Your task to perform on an android device: turn off location Image 0: 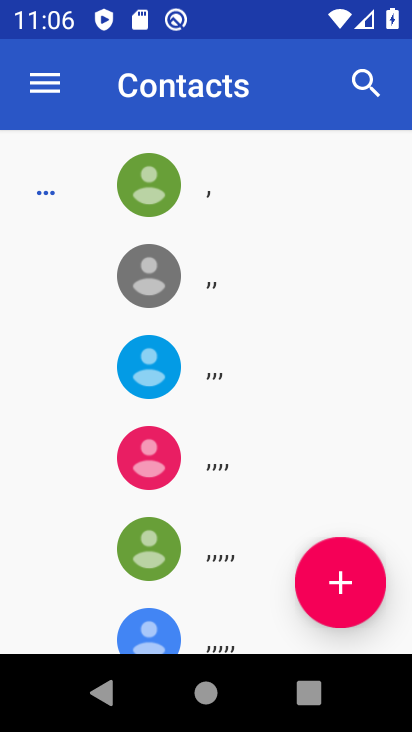
Step 0: press home button
Your task to perform on an android device: turn off location Image 1: 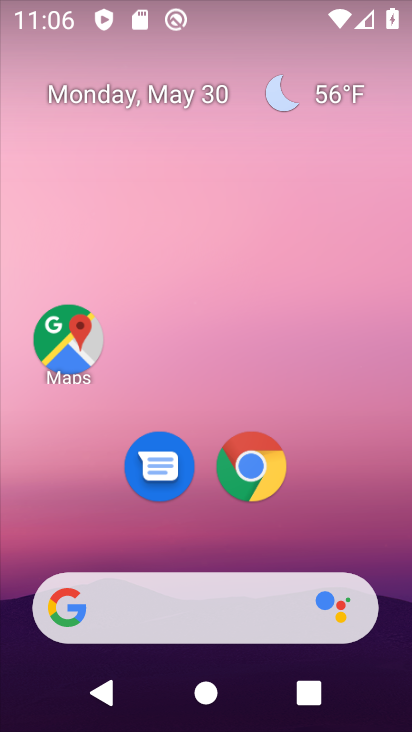
Step 1: drag from (369, 572) to (377, 86)
Your task to perform on an android device: turn off location Image 2: 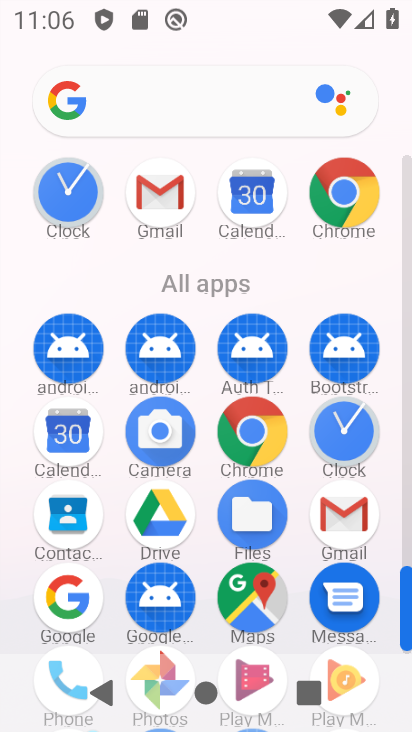
Step 2: drag from (202, 313) to (239, 84)
Your task to perform on an android device: turn off location Image 3: 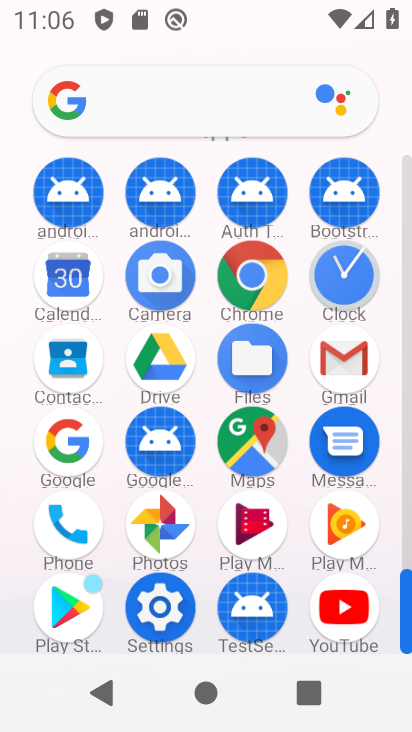
Step 3: click (167, 626)
Your task to perform on an android device: turn off location Image 4: 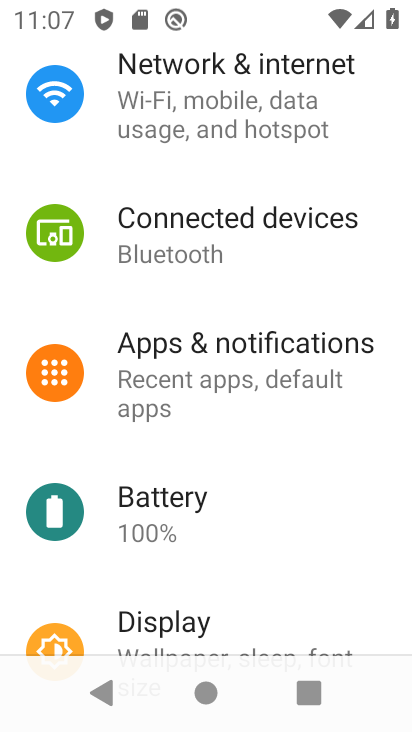
Step 4: drag from (236, 611) to (255, 272)
Your task to perform on an android device: turn off location Image 5: 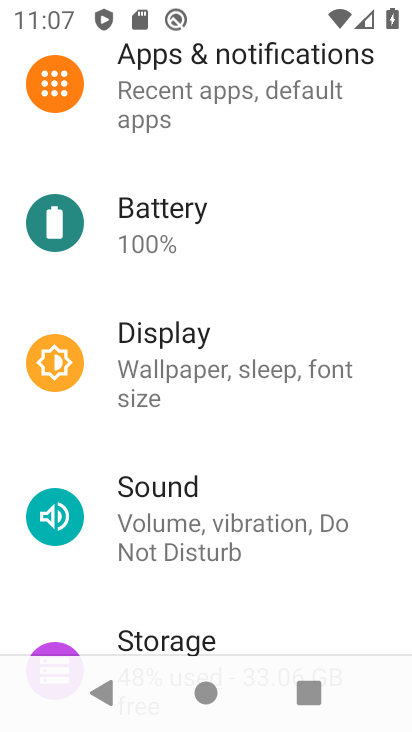
Step 5: drag from (235, 619) to (236, 284)
Your task to perform on an android device: turn off location Image 6: 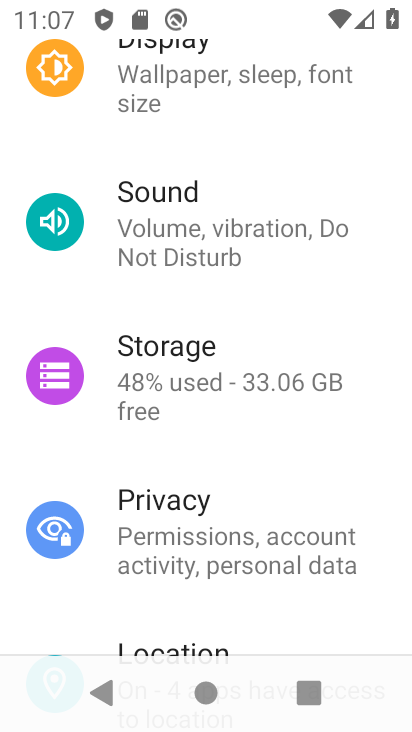
Step 6: drag from (209, 623) to (210, 371)
Your task to perform on an android device: turn off location Image 7: 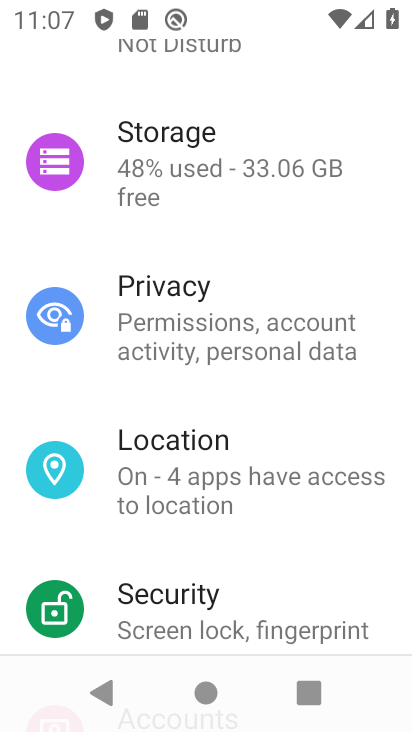
Step 7: click (189, 478)
Your task to perform on an android device: turn off location Image 8: 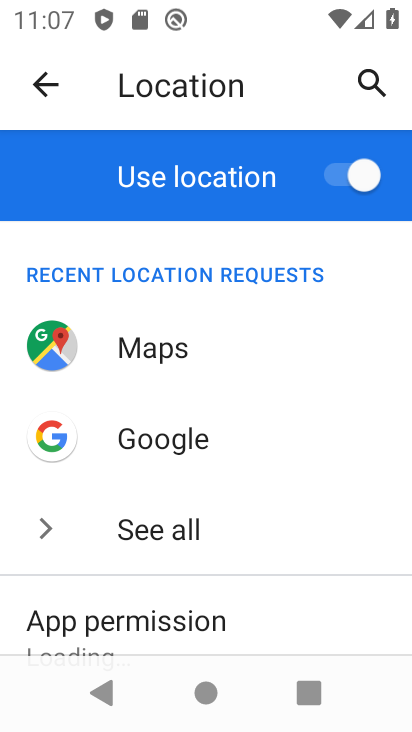
Step 8: click (377, 186)
Your task to perform on an android device: turn off location Image 9: 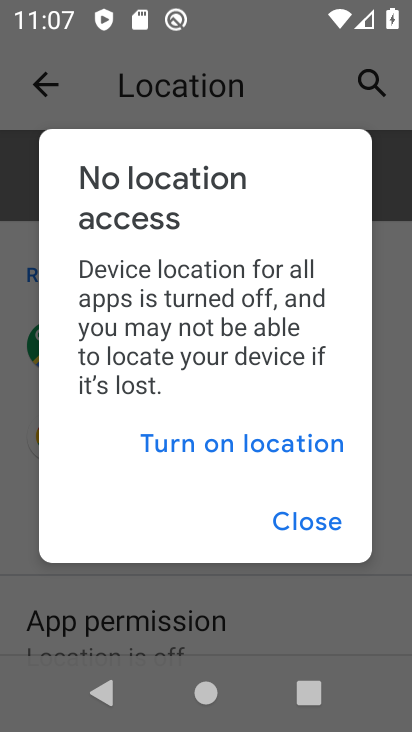
Step 9: task complete